Your task to perform on an android device: Go to CNN.com Image 0: 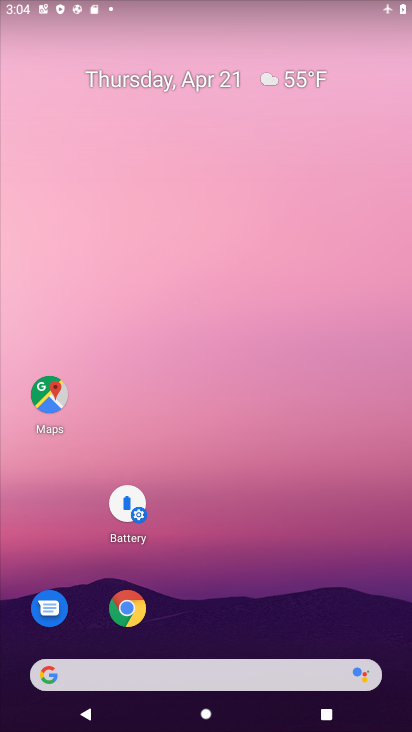
Step 0: drag from (320, 523) to (322, 28)
Your task to perform on an android device: Go to CNN.com Image 1: 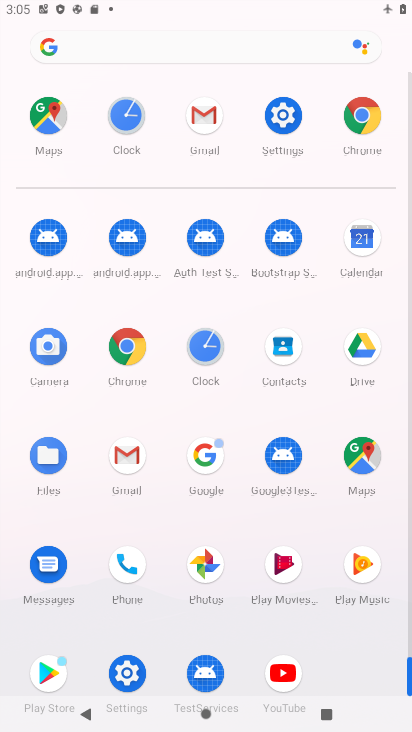
Step 1: click (368, 113)
Your task to perform on an android device: Go to CNN.com Image 2: 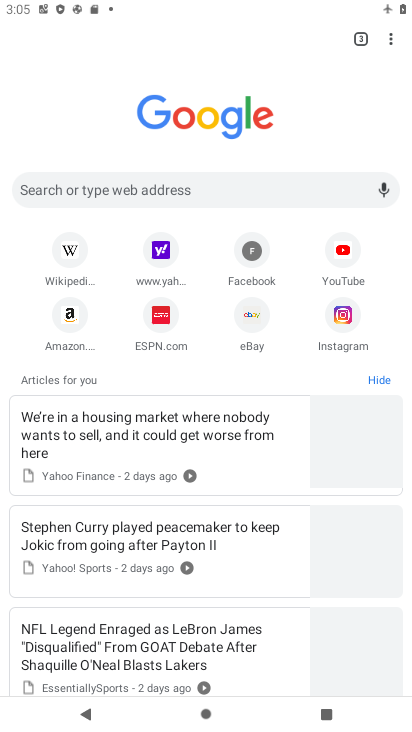
Step 2: click (108, 186)
Your task to perform on an android device: Go to CNN.com Image 3: 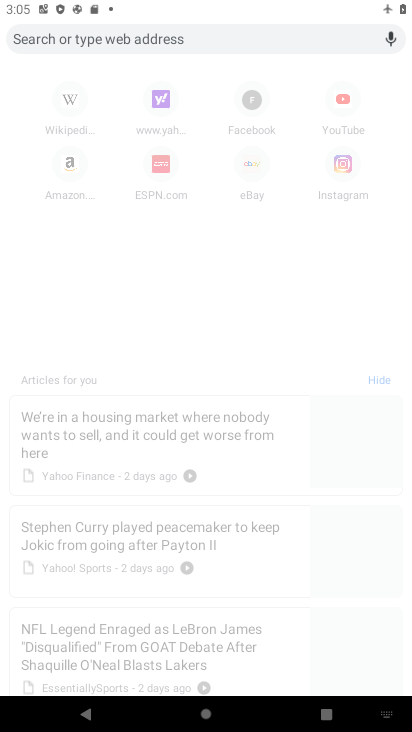
Step 3: type "cnn.com"
Your task to perform on an android device: Go to CNN.com Image 4: 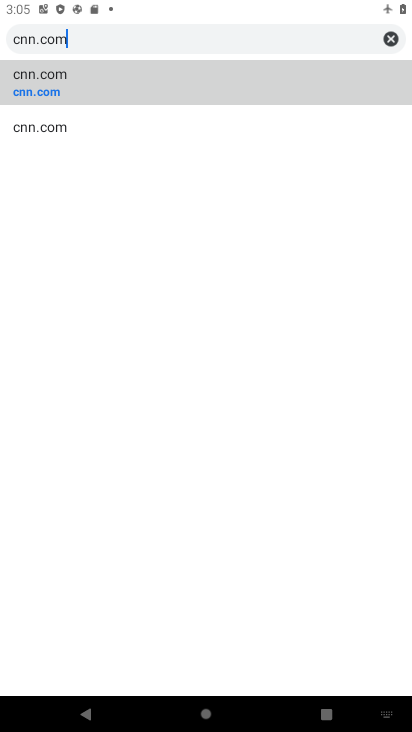
Step 4: click (40, 85)
Your task to perform on an android device: Go to CNN.com Image 5: 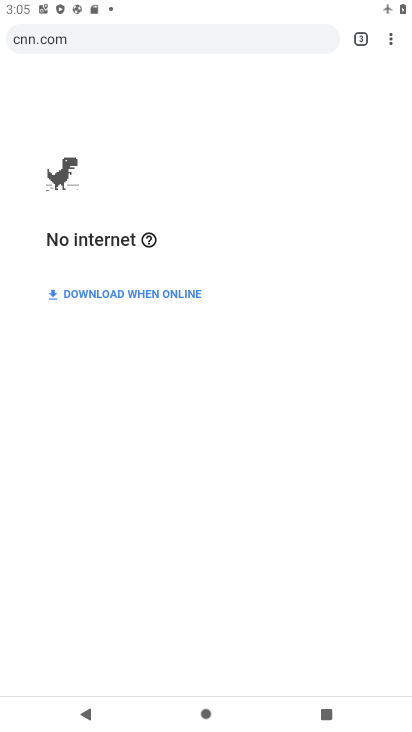
Step 5: task complete